Your task to perform on an android device: Search for Italian restaurants on Maps Image 0: 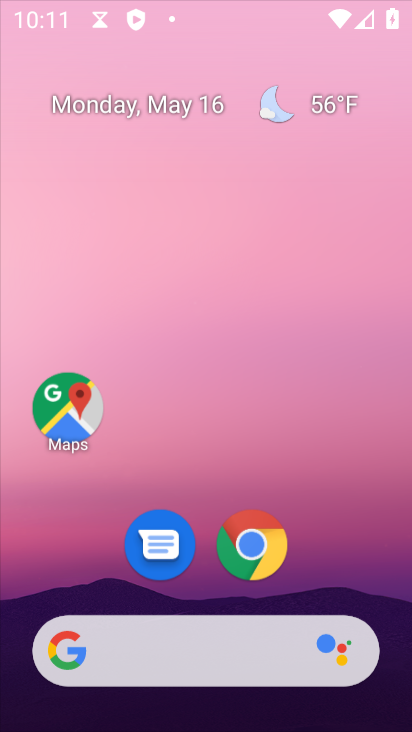
Step 0: click (62, 393)
Your task to perform on an android device: Search for Italian restaurants on Maps Image 1: 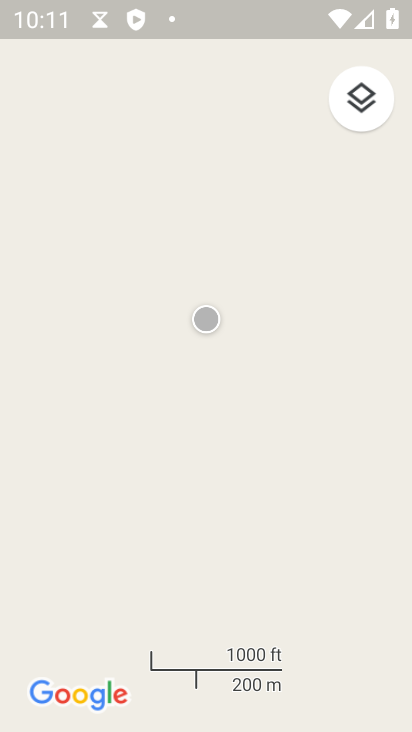
Step 1: click (66, 82)
Your task to perform on an android device: Search for Italian restaurants on Maps Image 2: 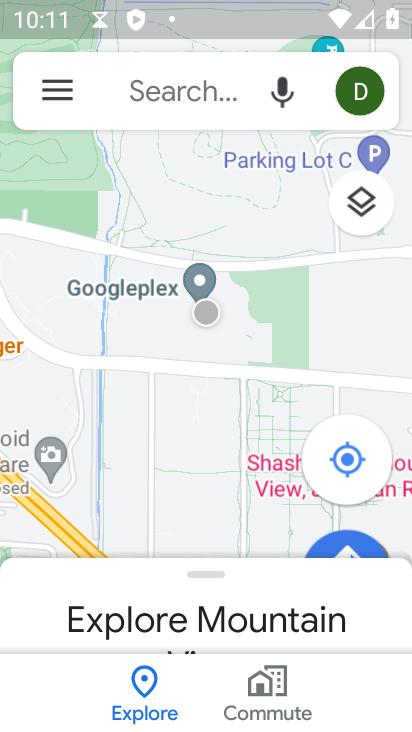
Step 2: click (66, 82)
Your task to perform on an android device: Search for Italian restaurants on Maps Image 3: 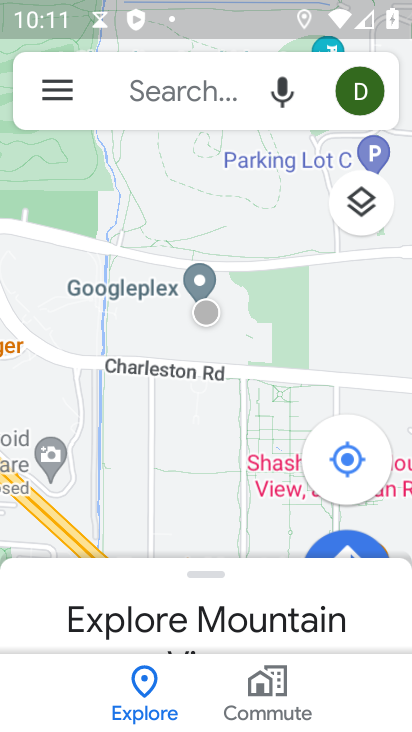
Step 3: click (62, 100)
Your task to perform on an android device: Search for Italian restaurants on Maps Image 4: 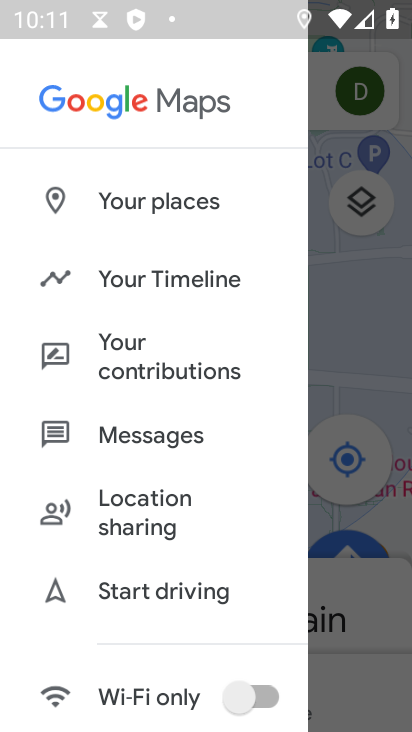
Step 4: drag from (176, 535) to (205, 155)
Your task to perform on an android device: Search for Italian restaurants on Maps Image 5: 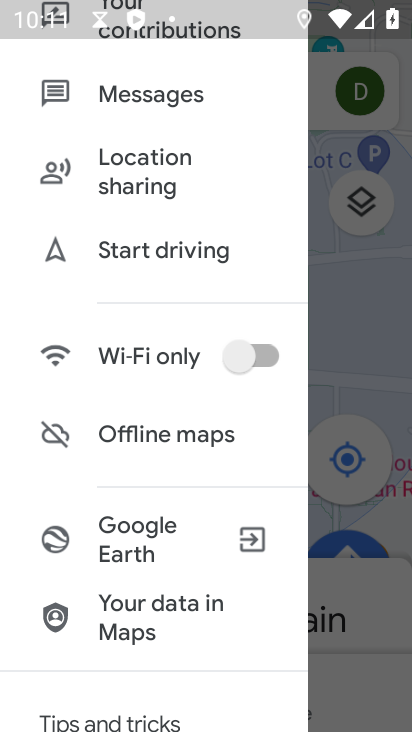
Step 5: click (384, 280)
Your task to perform on an android device: Search for Italian restaurants on Maps Image 6: 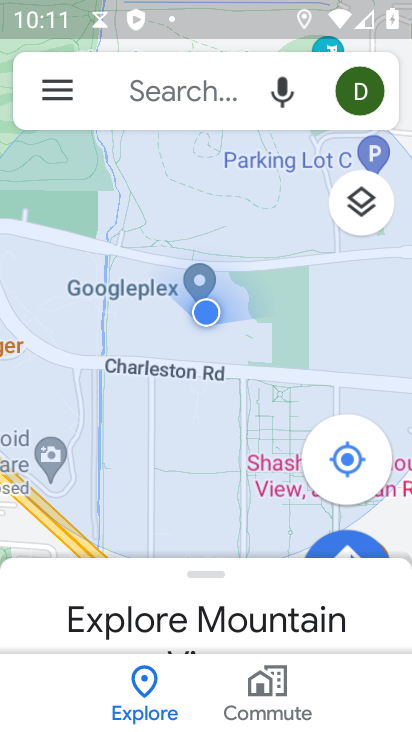
Step 6: click (216, 97)
Your task to perform on an android device: Search for Italian restaurants on Maps Image 7: 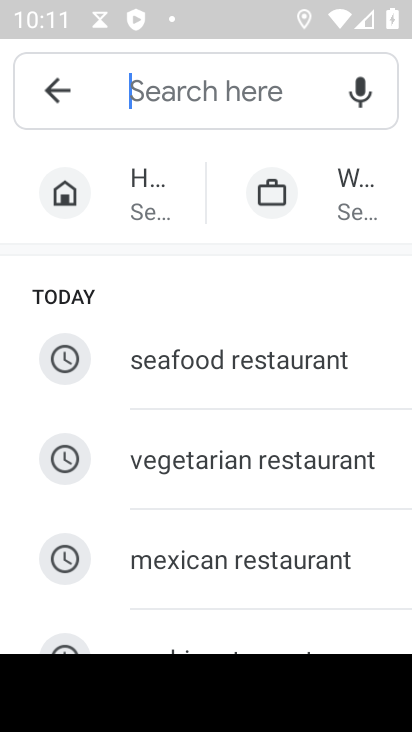
Step 7: drag from (259, 597) to (269, 265)
Your task to perform on an android device: Search for Italian restaurants on Maps Image 8: 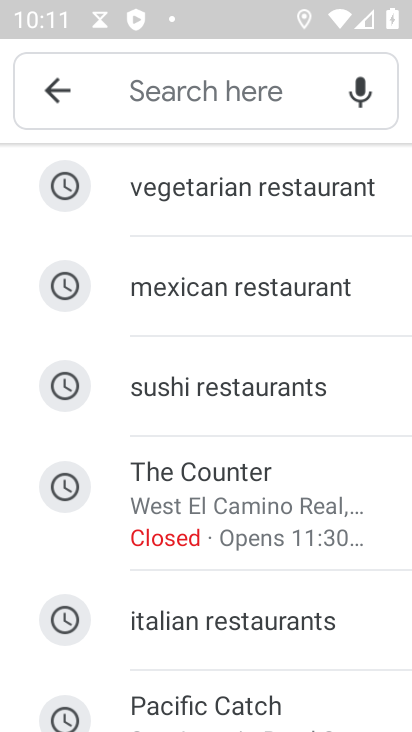
Step 8: click (235, 620)
Your task to perform on an android device: Search for Italian restaurants on Maps Image 9: 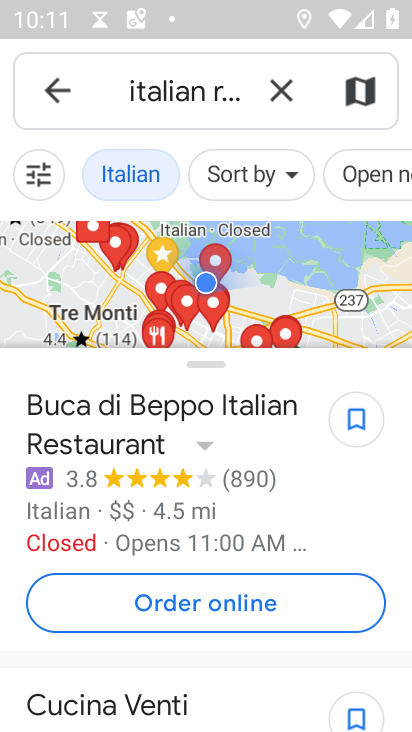
Step 9: task complete